Your task to perform on an android device: Open CNN.com Image 0: 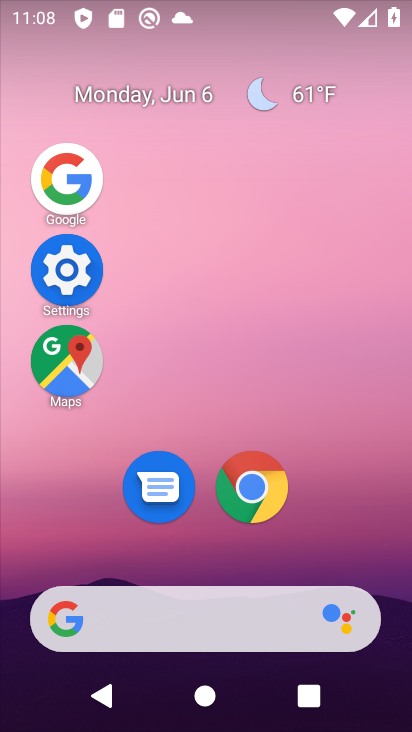
Step 0: click (78, 193)
Your task to perform on an android device: Open CNN.com Image 1: 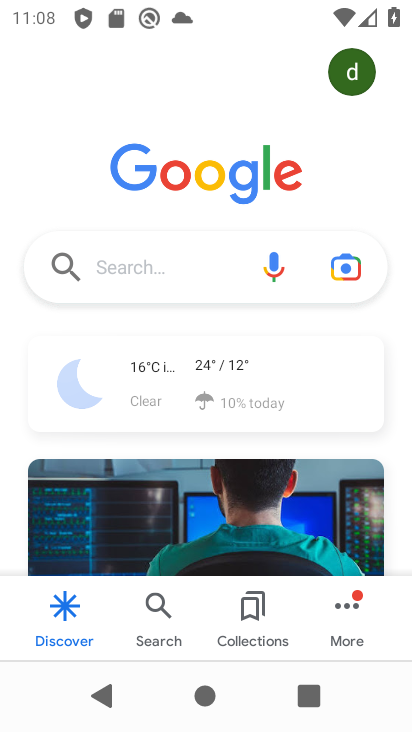
Step 1: click (166, 280)
Your task to perform on an android device: Open CNN.com Image 2: 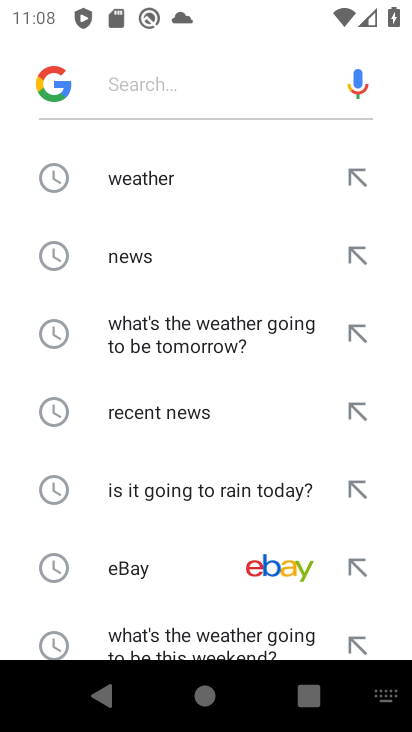
Step 2: drag from (250, 477) to (238, 160)
Your task to perform on an android device: Open CNN.com Image 3: 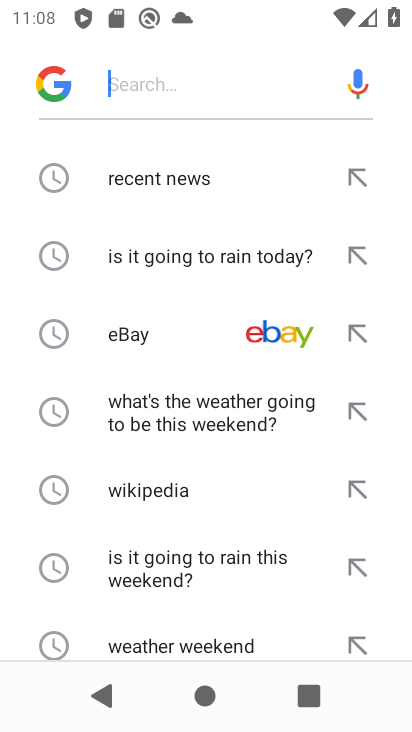
Step 3: drag from (152, 528) to (161, 153)
Your task to perform on an android device: Open CNN.com Image 4: 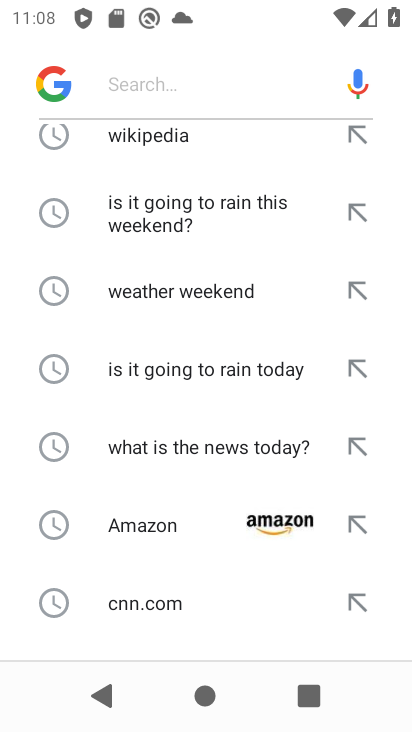
Step 4: drag from (147, 578) to (151, 310)
Your task to perform on an android device: Open CNN.com Image 5: 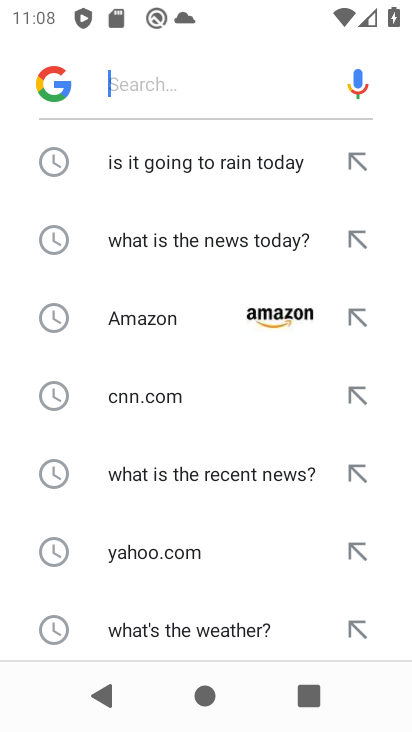
Step 5: click (163, 395)
Your task to perform on an android device: Open CNN.com Image 6: 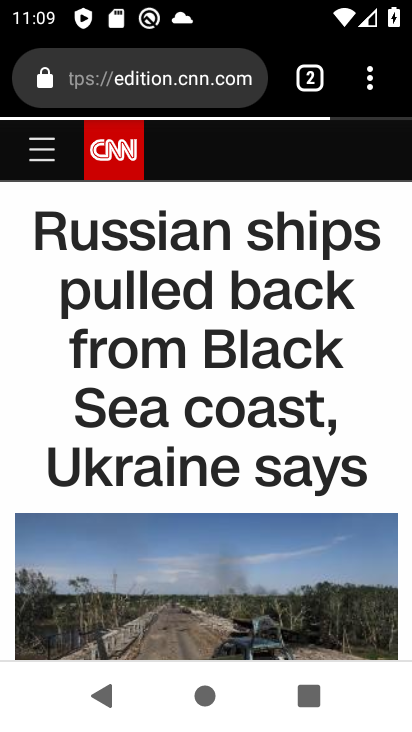
Step 6: task complete